Your task to perform on an android device: create a new album in the google photos Image 0: 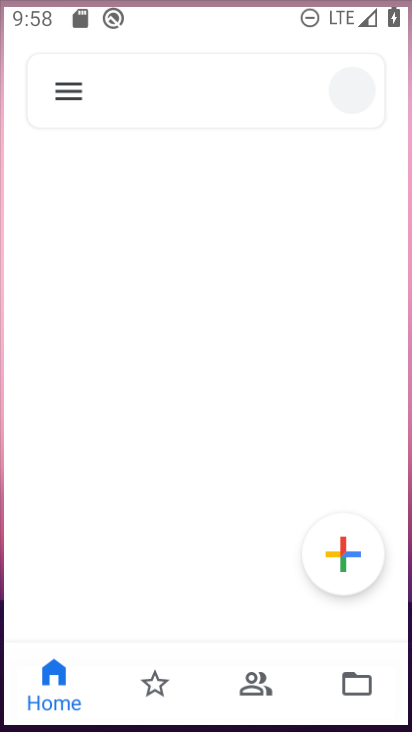
Step 0: drag from (236, 727) to (235, 117)
Your task to perform on an android device: create a new album in the google photos Image 1: 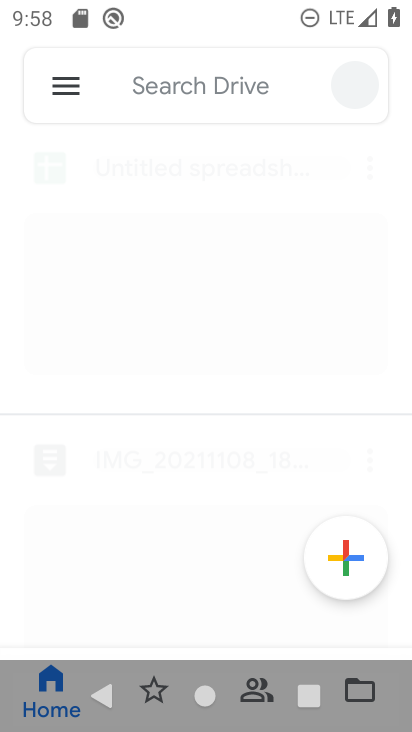
Step 1: press home button
Your task to perform on an android device: create a new album in the google photos Image 2: 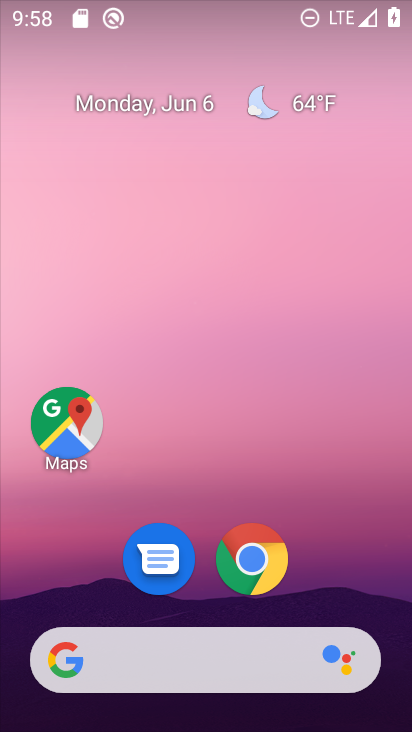
Step 2: drag from (229, 652) to (231, 138)
Your task to perform on an android device: create a new album in the google photos Image 3: 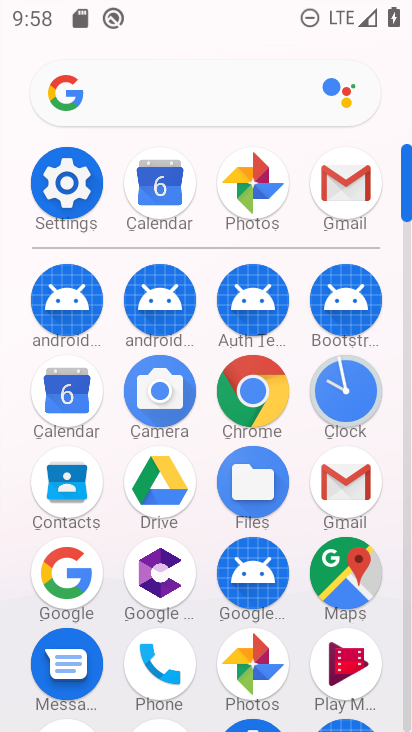
Step 3: click (244, 656)
Your task to perform on an android device: create a new album in the google photos Image 4: 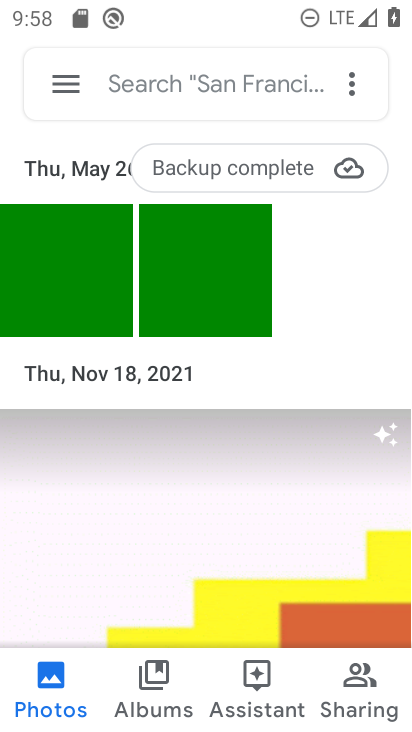
Step 4: click (351, 91)
Your task to perform on an android device: create a new album in the google photos Image 5: 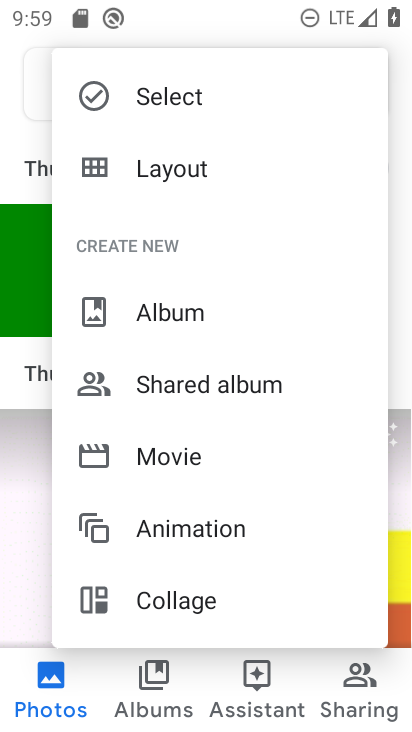
Step 5: click (158, 312)
Your task to perform on an android device: create a new album in the google photos Image 6: 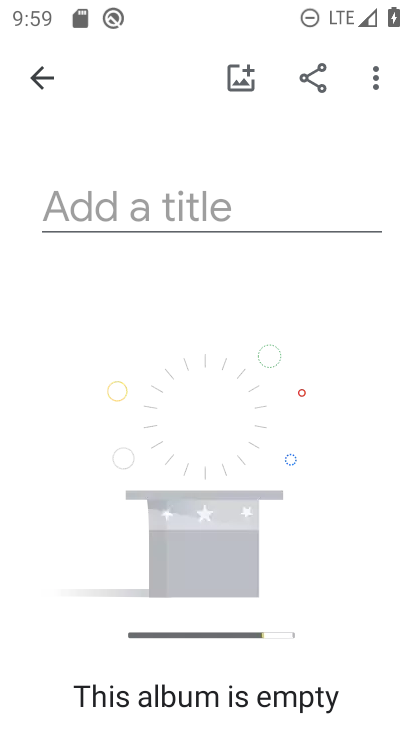
Step 6: click (141, 204)
Your task to perform on an android device: create a new album in the google photos Image 7: 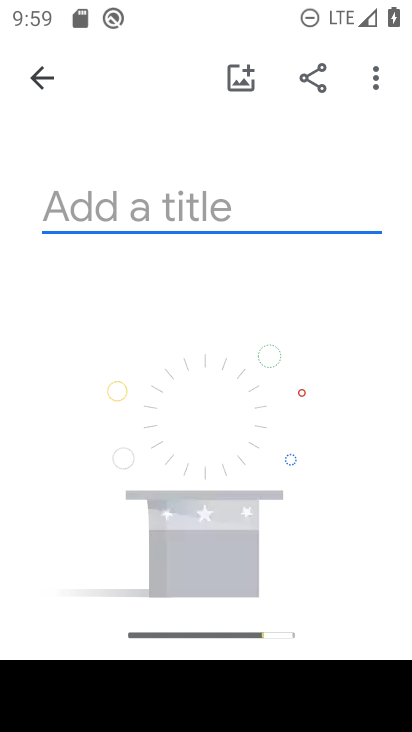
Step 7: type "m g r"
Your task to perform on an android device: create a new album in the google photos Image 8: 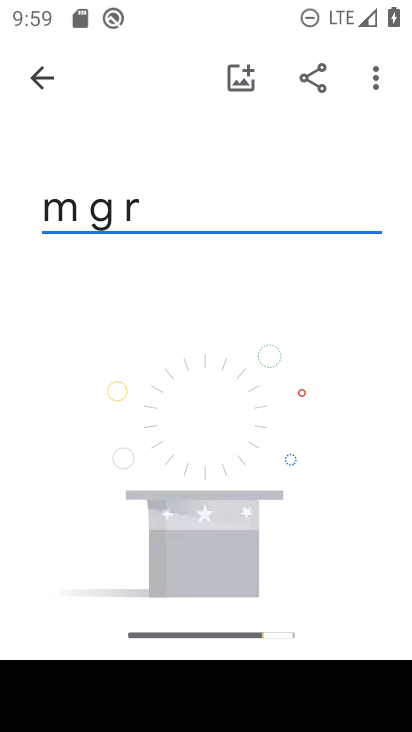
Step 8: click (183, 380)
Your task to perform on an android device: create a new album in the google photos Image 9: 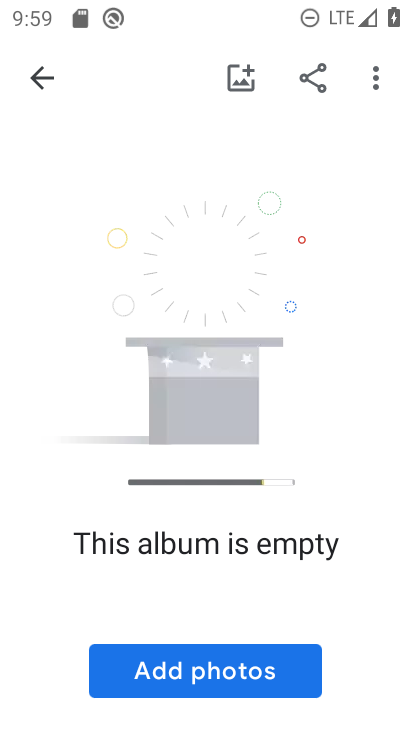
Step 9: click (182, 672)
Your task to perform on an android device: create a new album in the google photos Image 10: 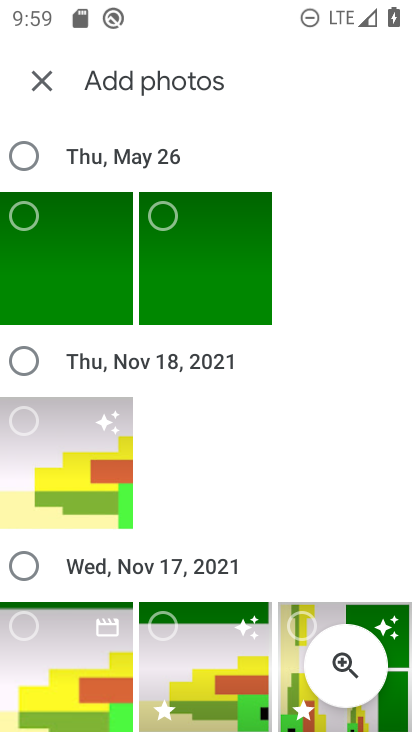
Step 10: click (160, 217)
Your task to perform on an android device: create a new album in the google photos Image 11: 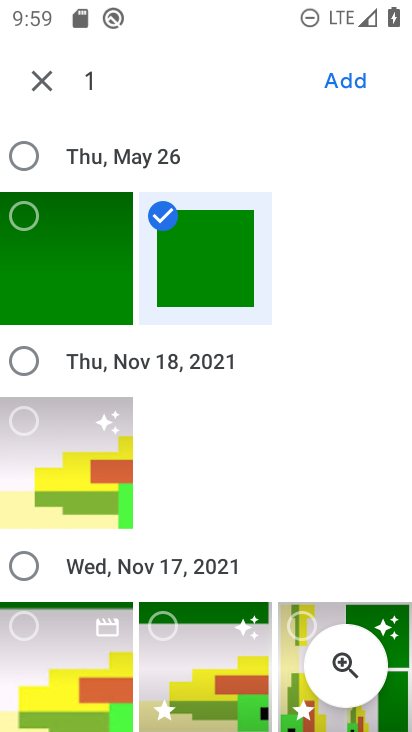
Step 11: click (32, 219)
Your task to perform on an android device: create a new album in the google photos Image 12: 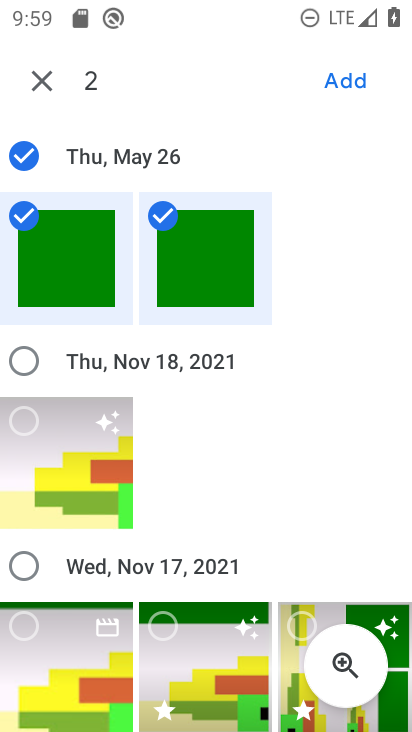
Step 12: click (348, 84)
Your task to perform on an android device: create a new album in the google photos Image 13: 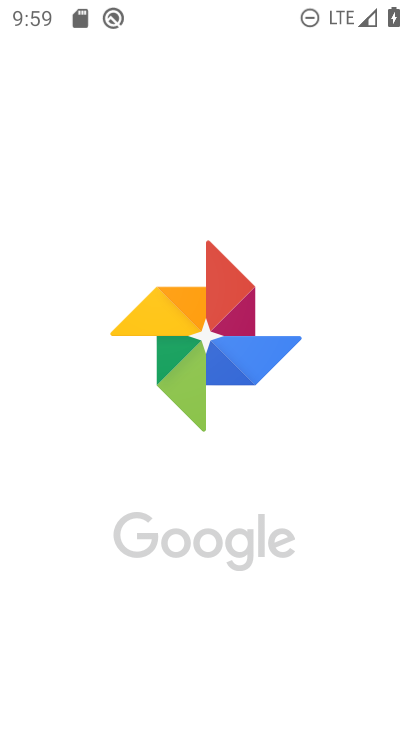
Step 13: task complete